Your task to perform on an android device: check android version Image 0: 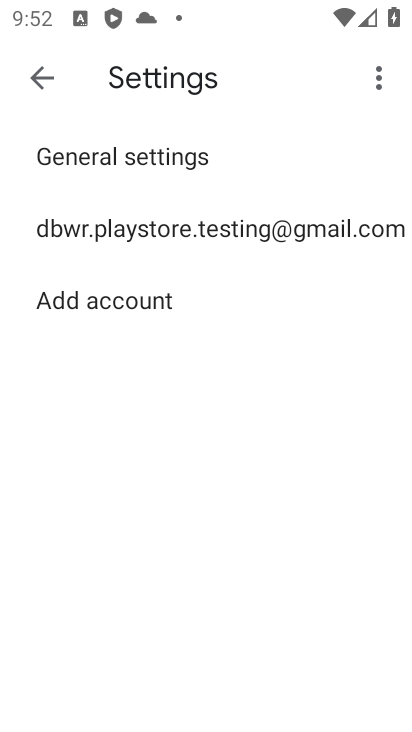
Step 0: press home button
Your task to perform on an android device: check android version Image 1: 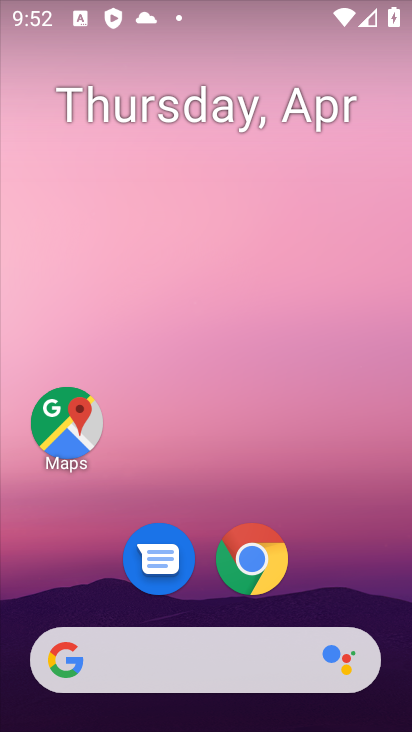
Step 1: drag from (209, 707) to (148, 79)
Your task to perform on an android device: check android version Image 2: 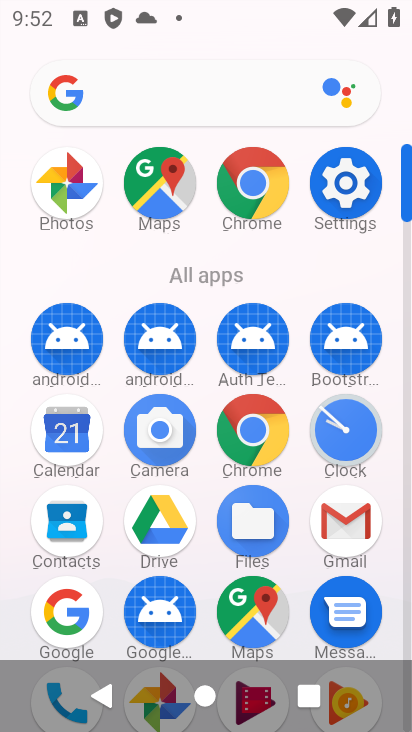
Step 2: click (361, 186)
Your task to perform on an android device: check android version Image 3: 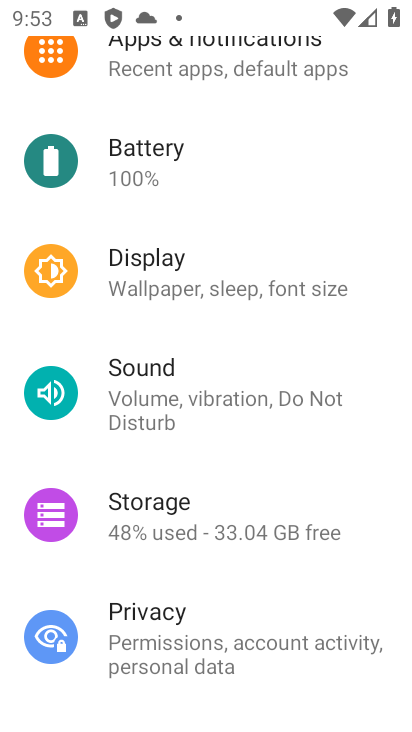
Step 3: drag from (246, 567) to (180, 43)
Your task to perform on an android device: check android version Image 4: 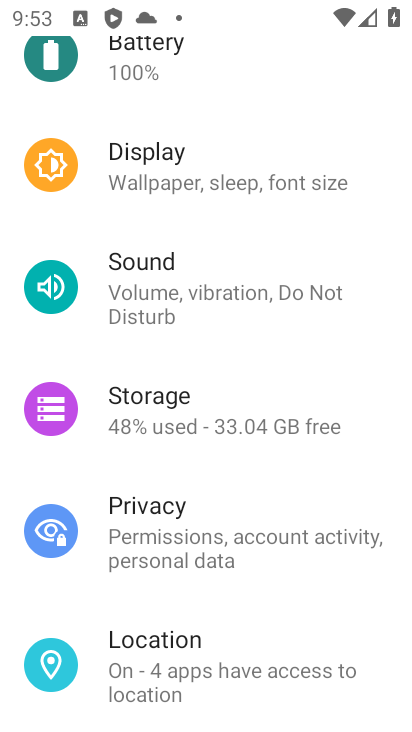
Step 4: drag from (323, 558) to (266, 38)
Your task to perform on an android device: check android version Image 5: 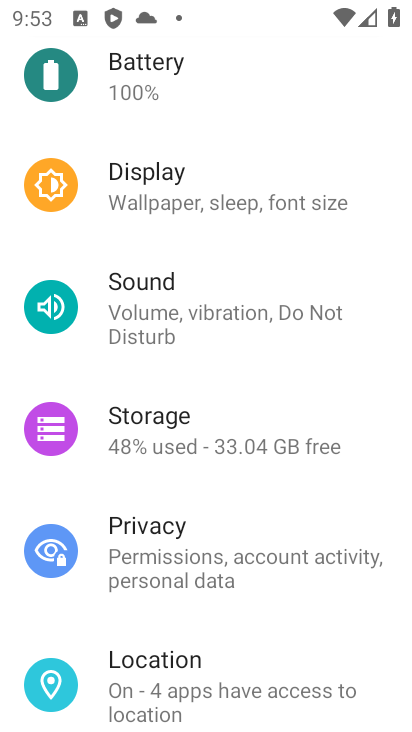
Step 5: drag from (286, 653) to (271, 132)
Your task to perform on an android device: check android version Image 6: 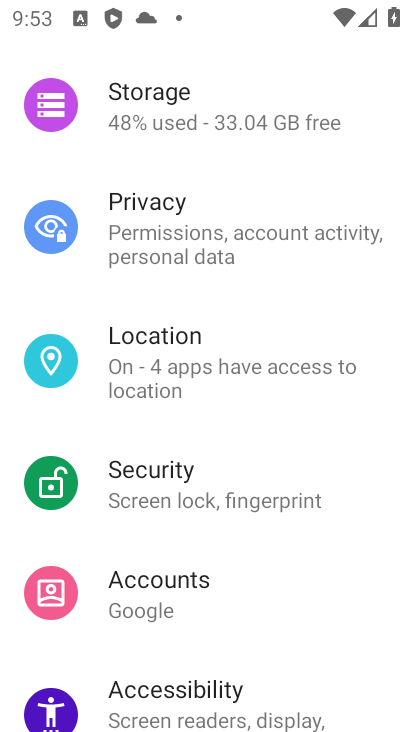
Step 6: drag from (335, 658) to (242, 55)
Your task to perform on an android device: check android version Image 7: 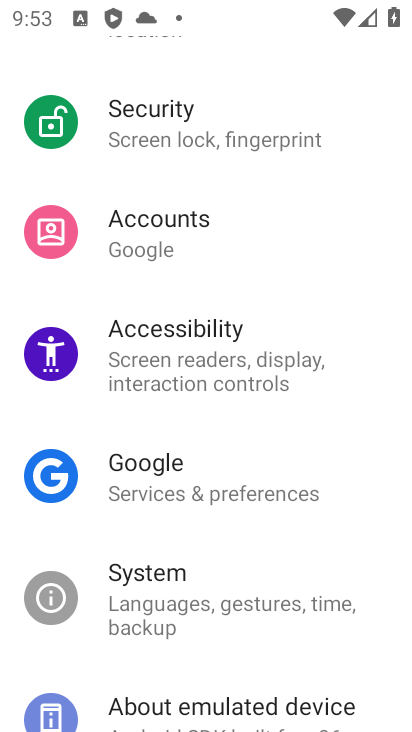
Step 7: drag from (332, 568) to (272, 83)
Your task to perform on an android device: check android version Image 8: 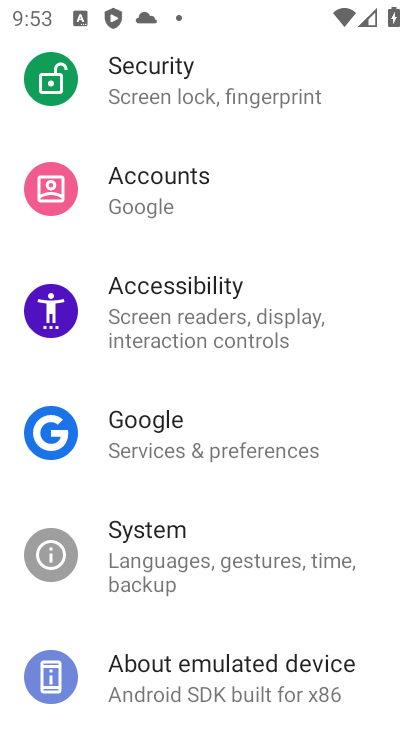
Step 8: click (307, 689)
Your task to perform on an android device: check android version Image 9: 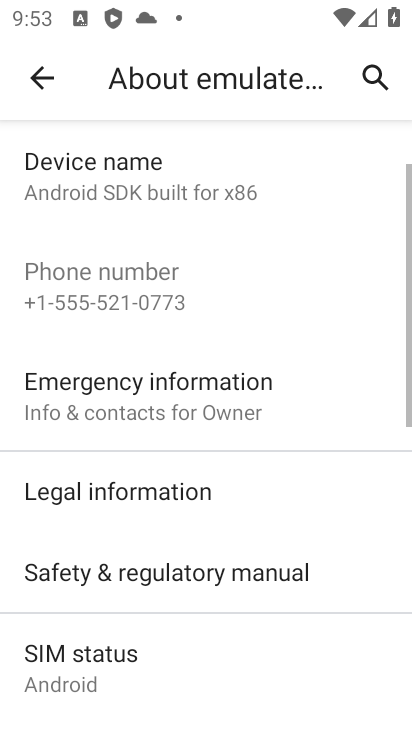
Step 9: task complete